Your task to perform on an android device: Is it going to rain this weekend? Image 0: 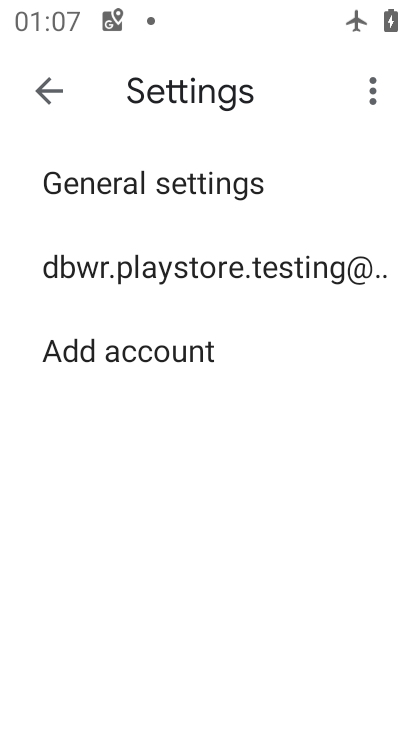
Step 0: press back button
Your task to perform on an android device: Is it going to rain this weekend? Image 1: 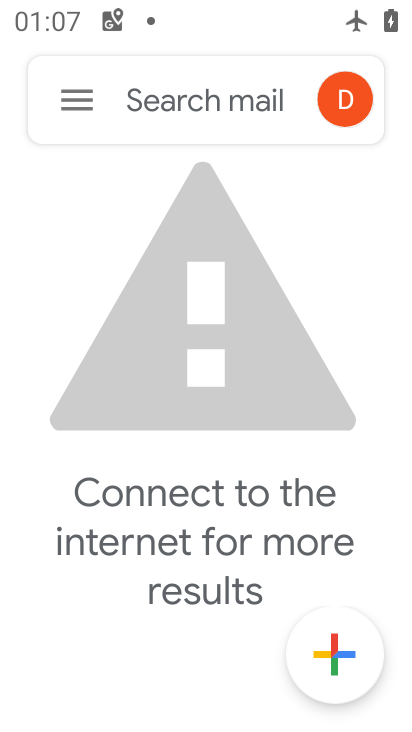
Step 1: press home button
Your task to perform on an android device: Is it going to rain this weekend? Image 2: 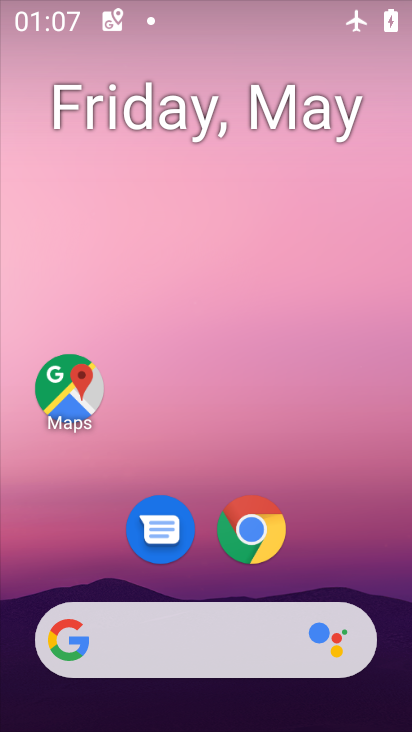
Step 2: drag from (299, 416) to (319, 112)
Your task to perform on an android device: Is it going to rain this weekend? Image 3: 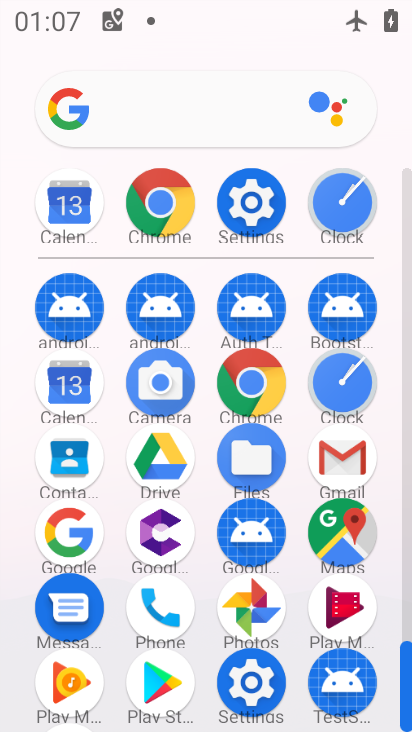
Step 3: click (158, 211)
Your task to perform on an android device: Is it going to rain this weekend? Image 4: 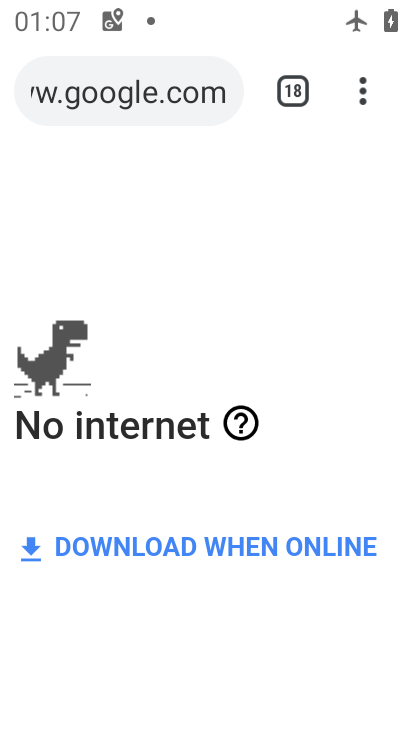
Step 4: click (341, 83)
Your task to perform on an android device: Is it going to rain this weekend? Image 5: 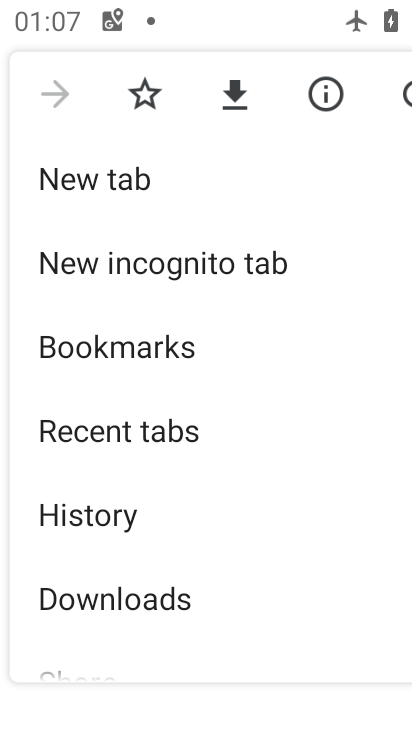
Step 5: click (108, 175)
Your task to perform on an android device: Is it going to rain this weekend? Image 6: 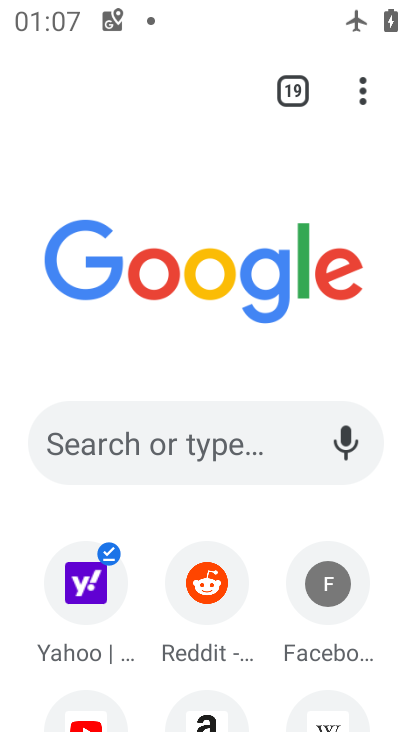
Step 6: click (190, 448)
Your task to perform on an android device: Is it going to rain this weekend? Image 7: 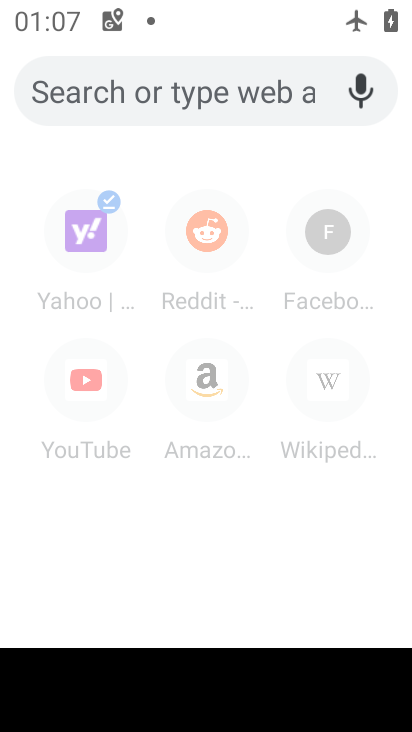
Step 7: type "Is it going to rain this weekend?"
Your task to perform on an android device: Is it going to rain this weekend? Image 8: 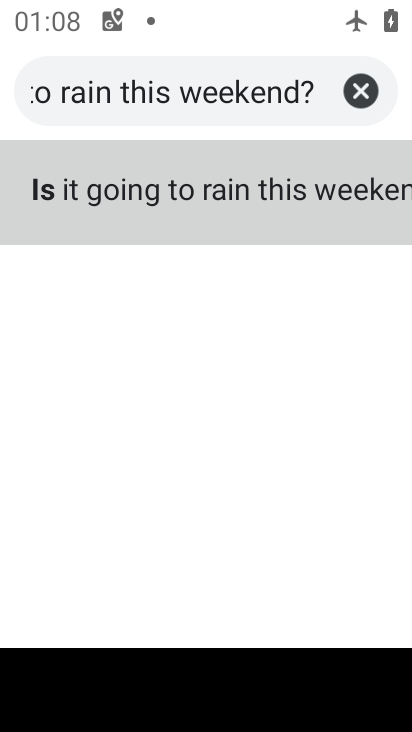
Step 8: click (192, 187)
Your task to perform on an android device: Is it going to rain this weekend? Image 9: 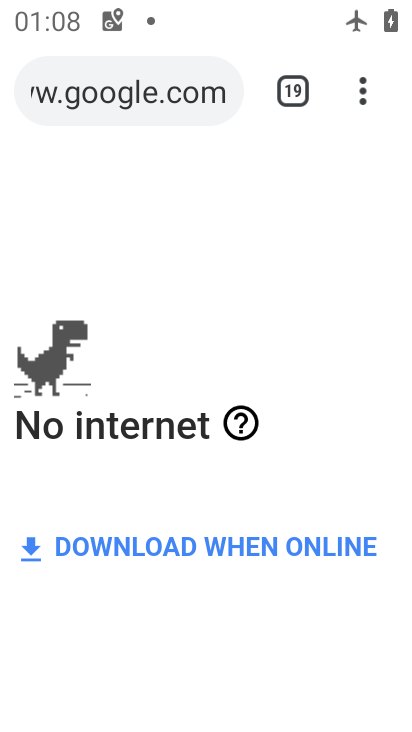
Step 9: task complete